Your task to perform on an android device: choose inbox layout in the gmail app Image 0: 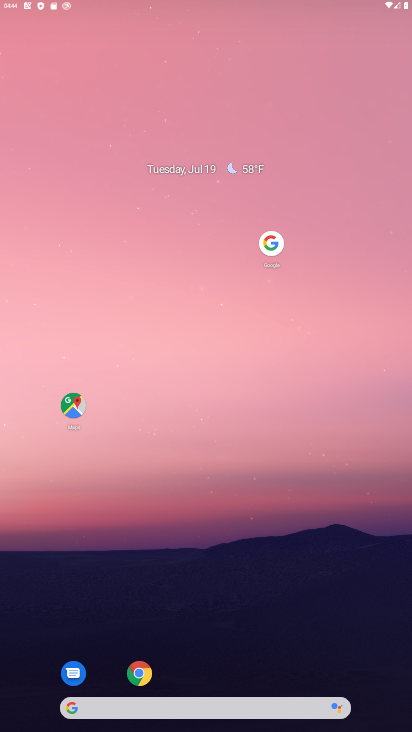
Step 0: press home button
Your task to perform on an android device: choose inbox layout in the gmail app Image 1: 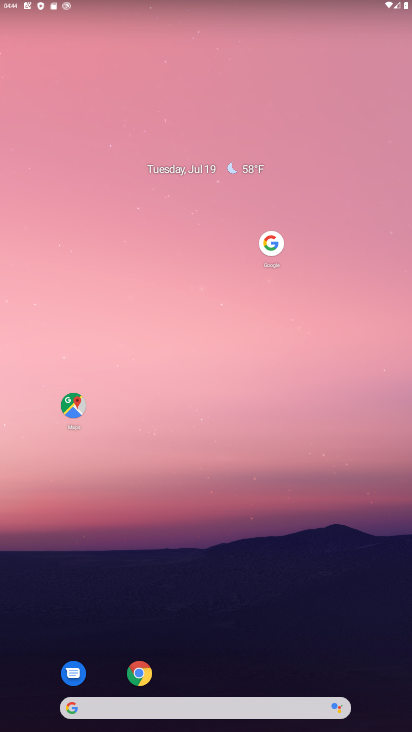
Step 1: drag from (191, 655) to (177, 198)
Your task to perform on an android device: choose inbox layout in the gmail app Image 2: 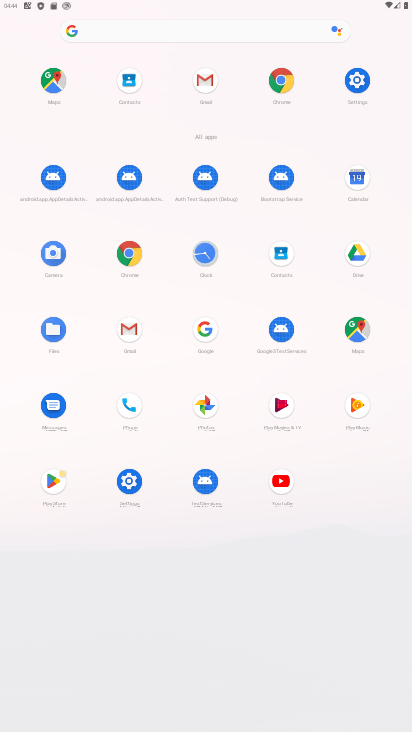
Step 2: click (202, 76)
Your task to perform on an android device: choose inbox layout in the gmail app Image 3: 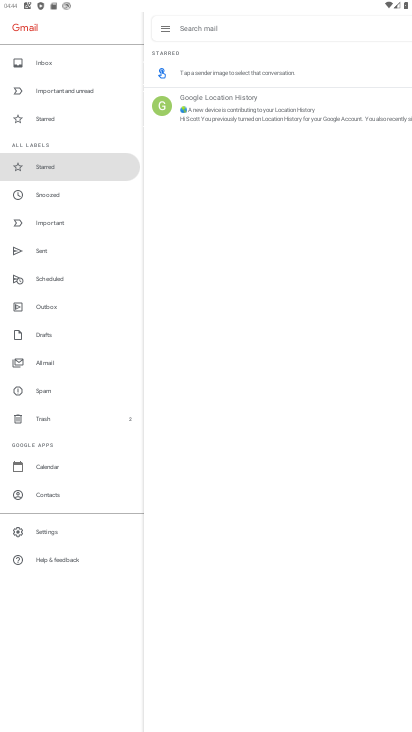
Step 3: click (44, 526)
Your task to perform on an android device: choose inbox layout in the gmail app Image 4: 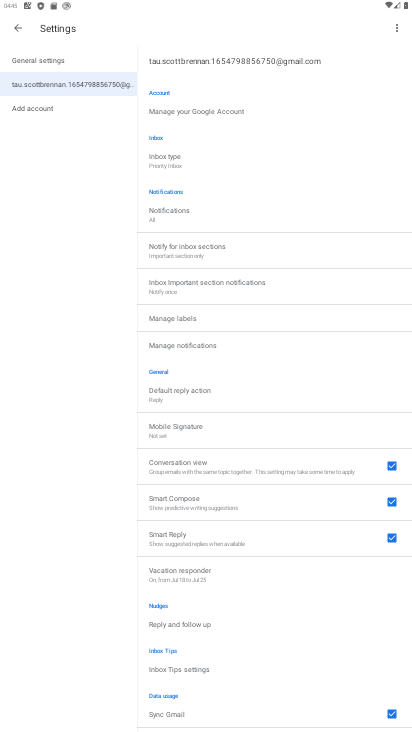
Step 4: click (169, 156)
Your task to perform on an android device: choose inbox layout in the gmail app Image 5: 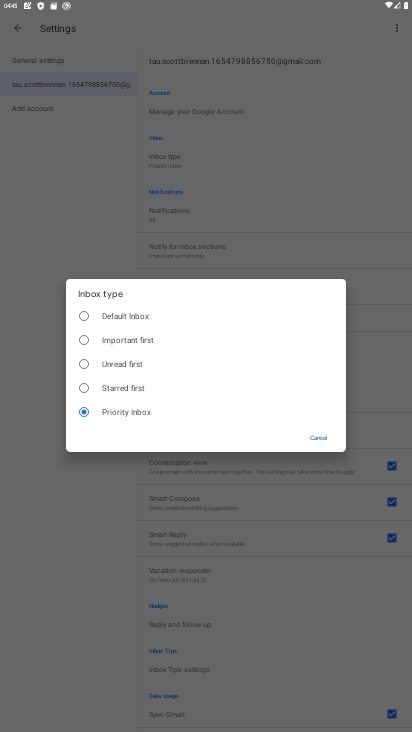
Step 5: click (83, 315)
Your task to perform on an android device: choose inbox layout in the gmail app Image 6: 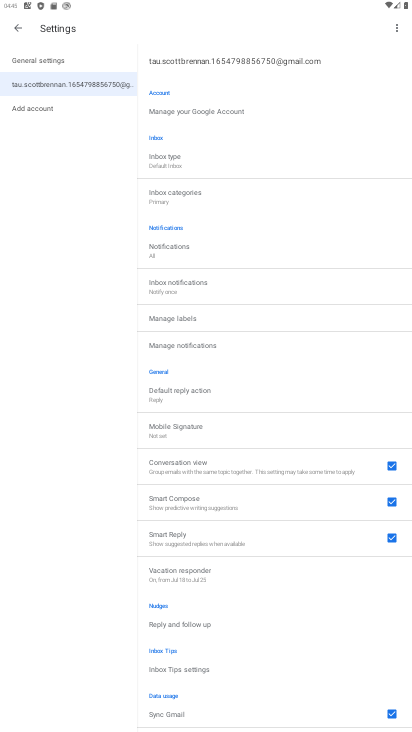
Step 6: task complete